Your task to perform on an android device: Check the weather Image 0: 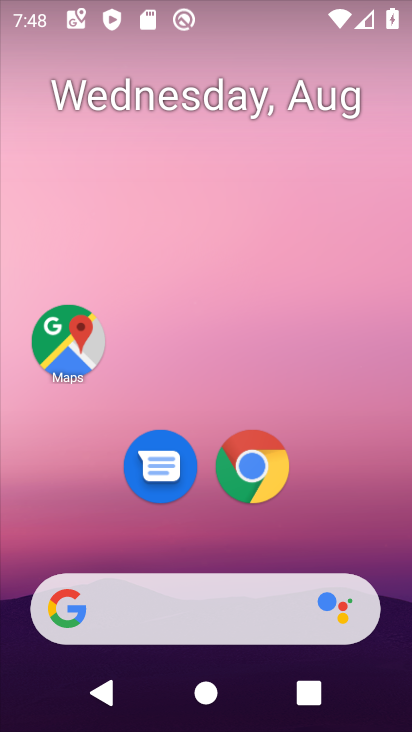
Step 0: drag from (380, 494) to (348, 92)
Your task to perform on an android device: Check the weather Image 1: 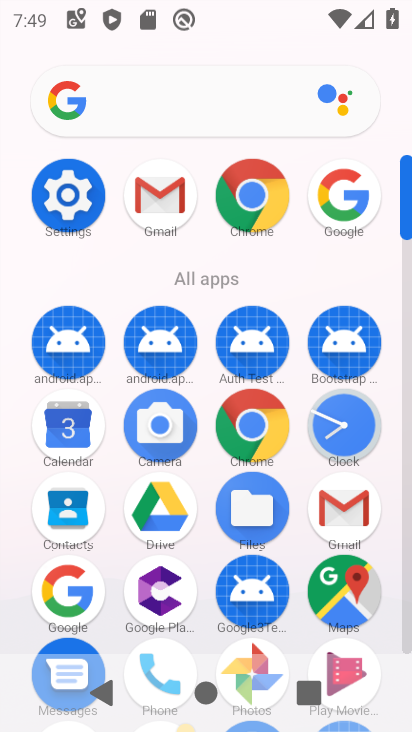
Step 1: click (260, 200)
Your task to perform on an android device: Check the weather Image 2: 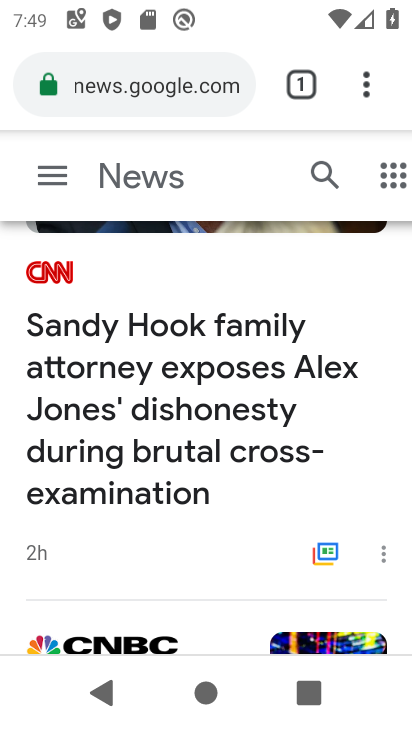
Step 2: click (207, 95)
Your task to perform on an android device: Check the weather Image 3: 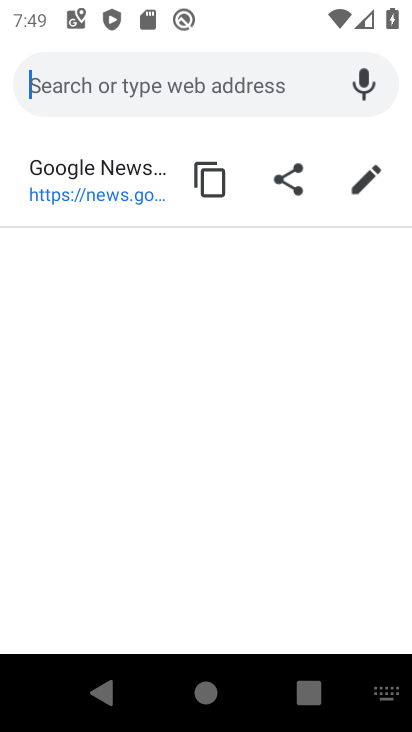
Step 3: type "weather"
Your task to perform on an android device: Check the weather Image 4: 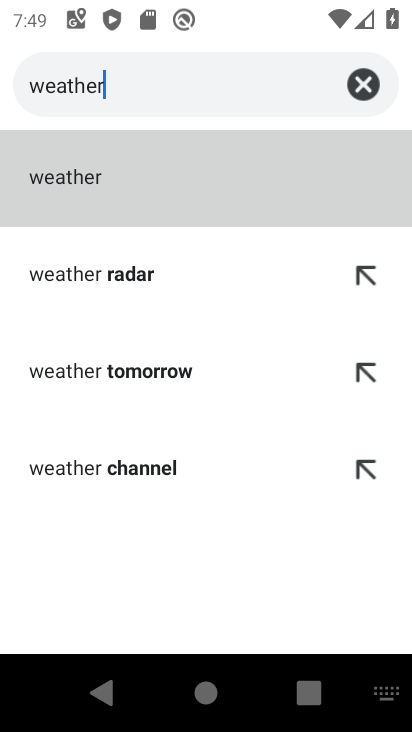
Step 4: click (51, 180)
Your task to perform on an android device: Check the weather Image 5: 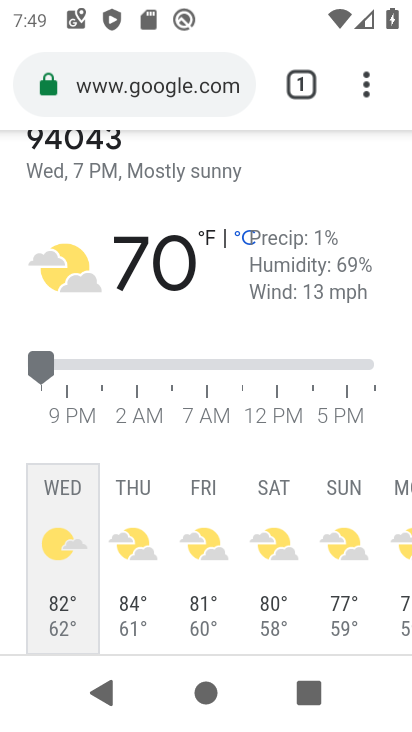
Step 5: task complete